Your task to perform on an android device: toggle improve location accuracy Image 0: 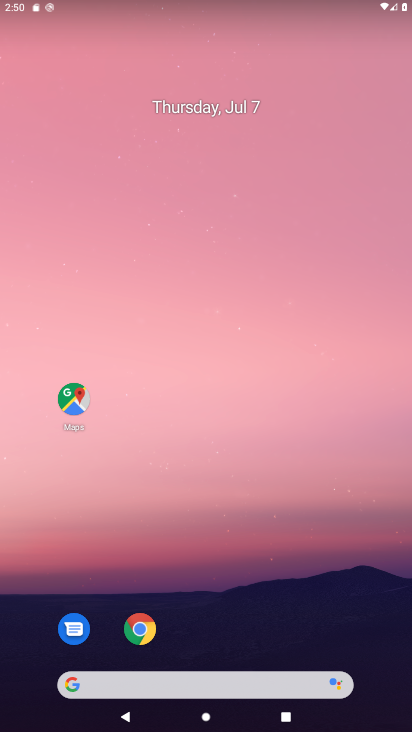
Step 0: drag from (350, 616) to (411, 260)
Your task to perform on an android device: toggle improve location accuracy Image 1: 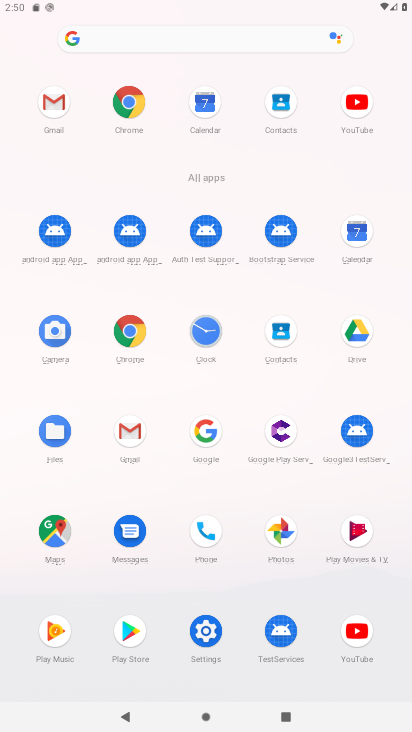
Step 1: click (209, 635)
Your task to perform on an android device: toggle improve location accuracy Image 2: 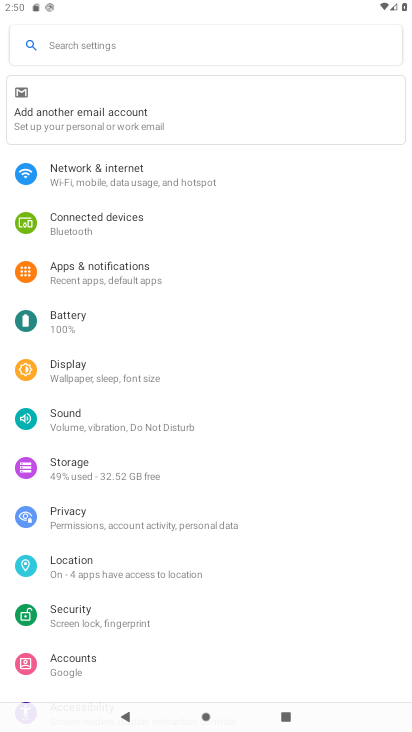
Step 2: click (94, 564)
Your task to perform on an android device: toggle improve location accuracy Image 3: 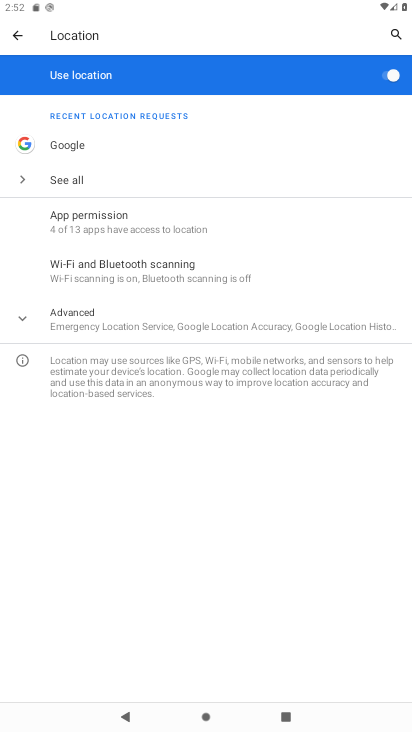
Step 3: click (119, 313)
Your task to perform on an android device: toggle improve location accuracy Image 4: 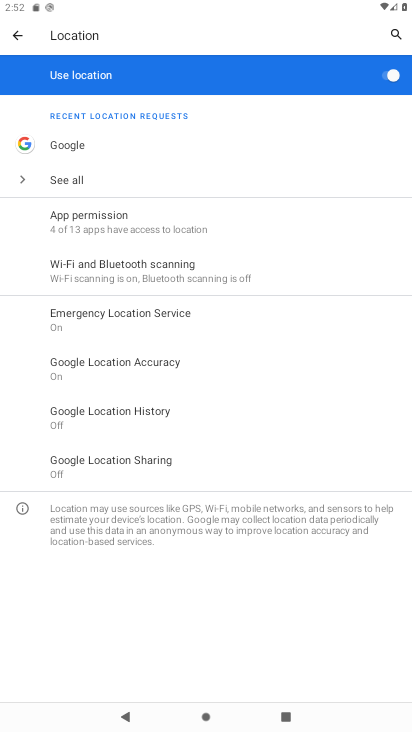
Step 4: click (126, 370)
Your task to perform on an android device: toggle improve location accuracy Image 5: 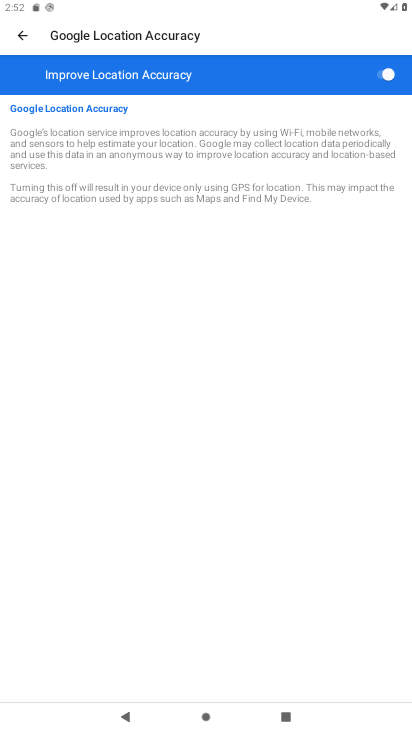
Step 5: click (396, 76)
Your task to perform on an android device: toggle improve location accuracy Image 6: 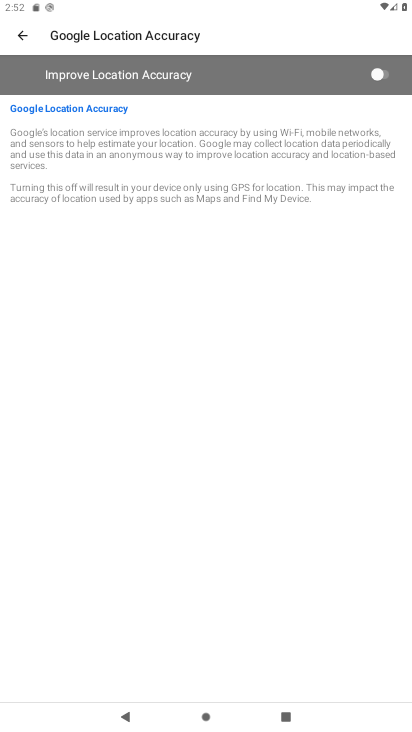
Step 6: task complete